Your task to perform on an android device: Open Reddit.com Image 0: 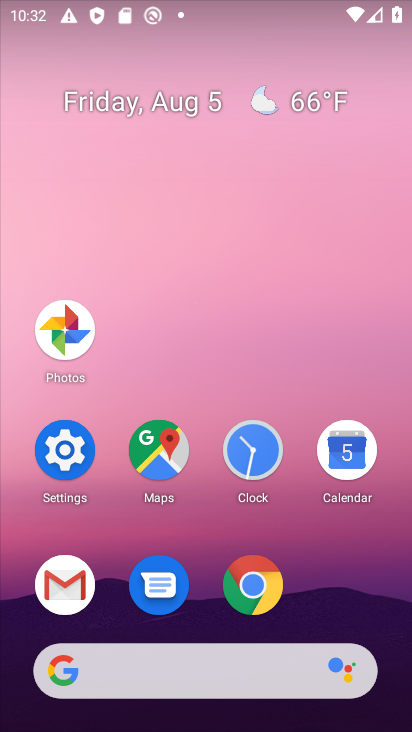
Step 0: click (251, 583)
Your task to perform on an android device: Open Reddit.com Image 1: 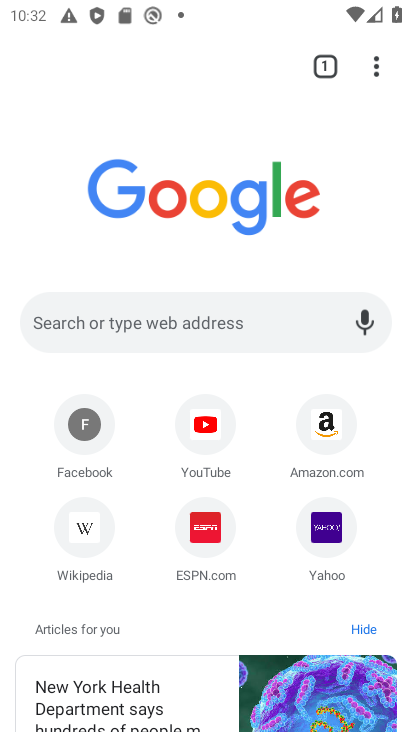
Step 1: click (202, 314)
Your task to perform on an android device: Open Reddit.com Image 2: 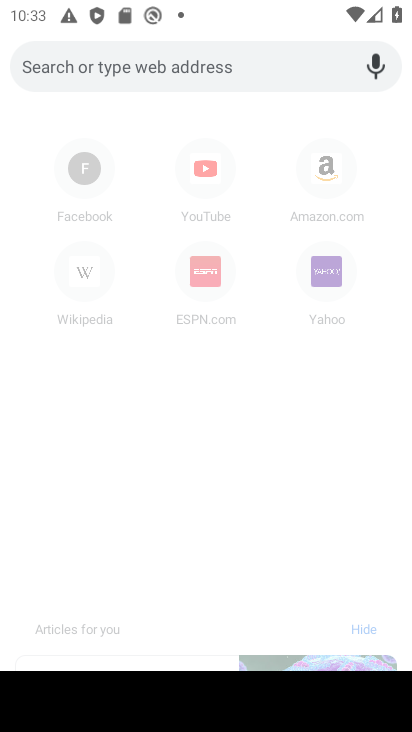
Step 2: type "Reddit.com"
Your task to perform on an android device: Open Reddit.com Image 3: 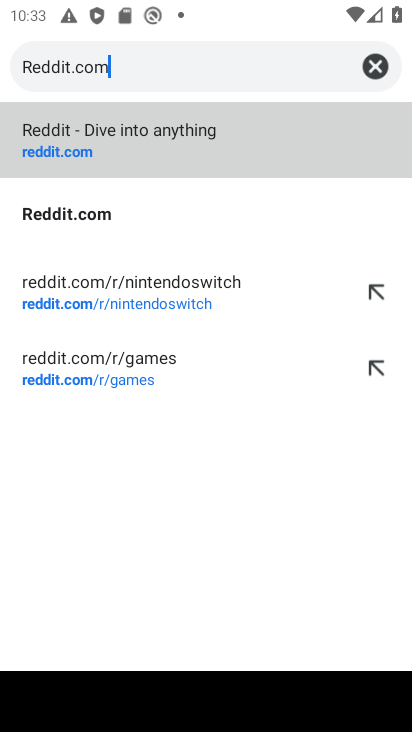
Step 3: click (61, 212)
Your task to perform on an android device: Open Reddit.com Image 4: 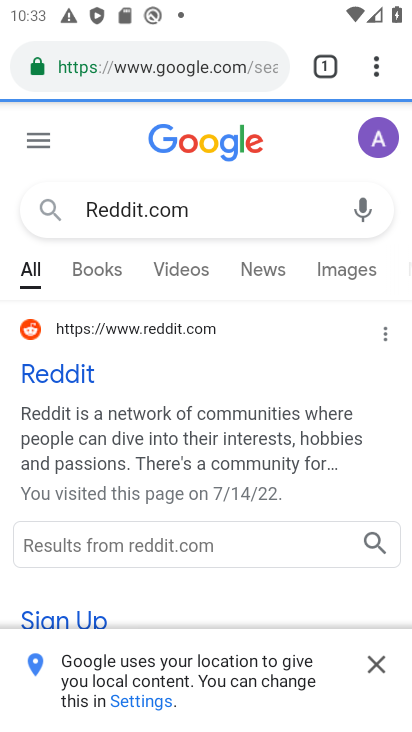
Step 4: click (76, 365)
Your task to perform on an android device: Open Reddit.com Image 5: 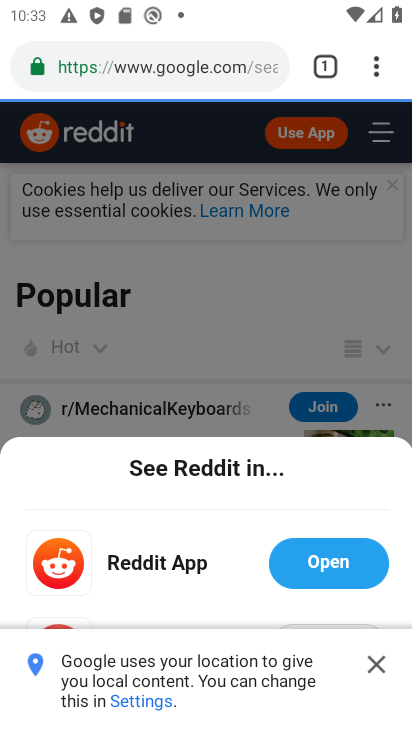
Step 5: task complete